Your task to perform on an android device: Search for sushi restaurants on Maps Image 0: 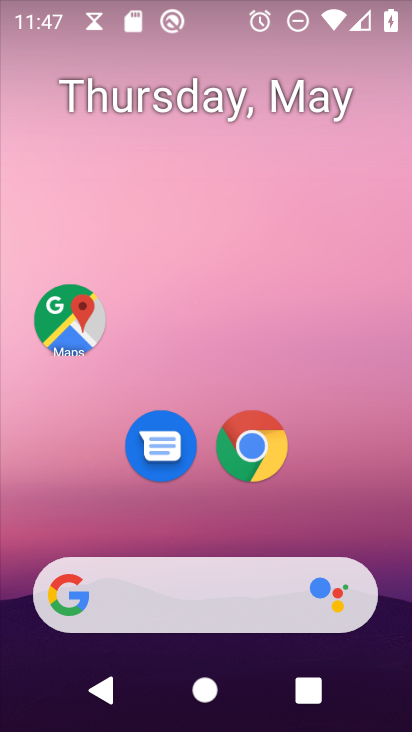
Step 0: drag from (303, 624) to (208, 198)
Your task to perform on an android device: Search for sushi restaurants on Maps Image 1: 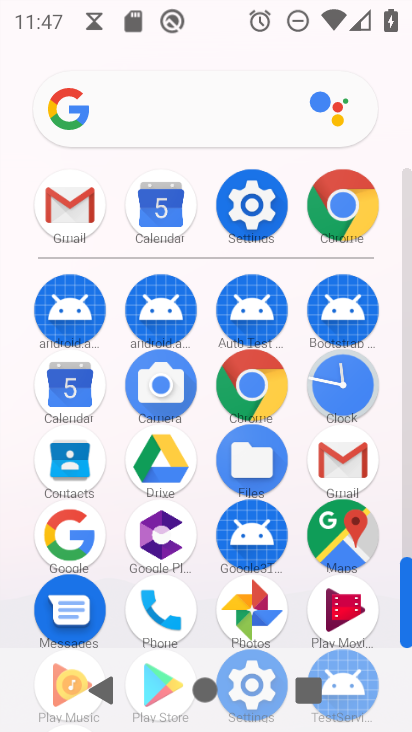
Step 1: click (334, 522)
Your task to perform on an android device: Search for sushi restaurants on Maps Image 2: 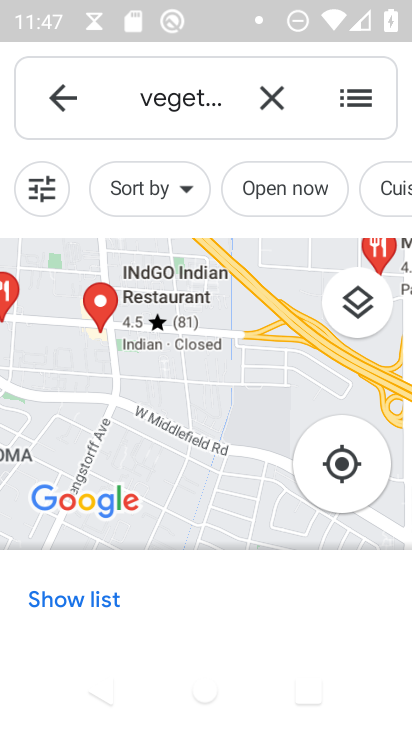
Step 2: click (261, 103)
Your task to perform on an android device: Search for sushi restaurants on Maps Image 3: 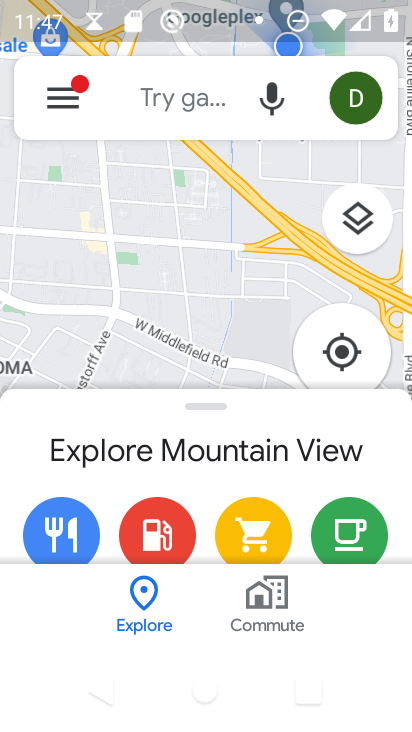
Step 3: click (174, 97)
Your task to perform on an android device: Search for sushi restaurants on Maps Image 4: 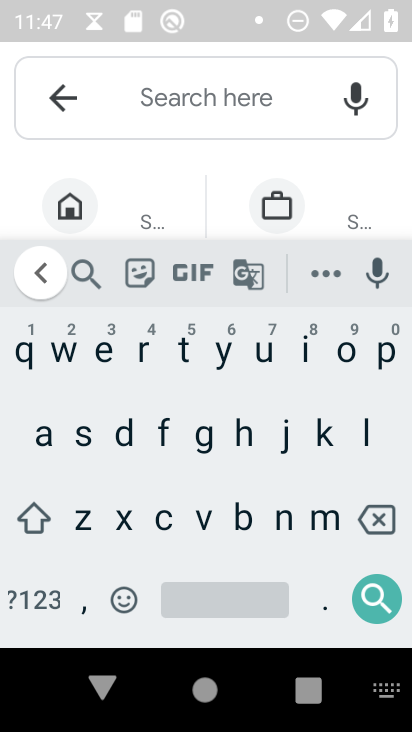
Step 4: click (79, 432)
Your task to perform on an android device: Search for sushi restaurants on Maps Image 5: 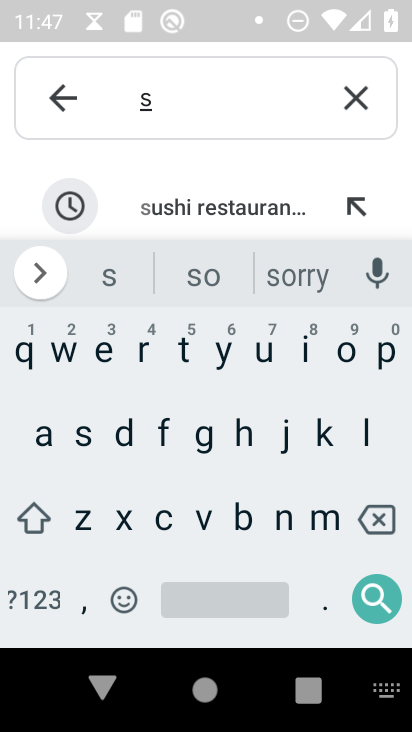
Step 5: click (233, 194)
Your task to perform on an android device: Search for sushi restaurants on Maps Image 6: 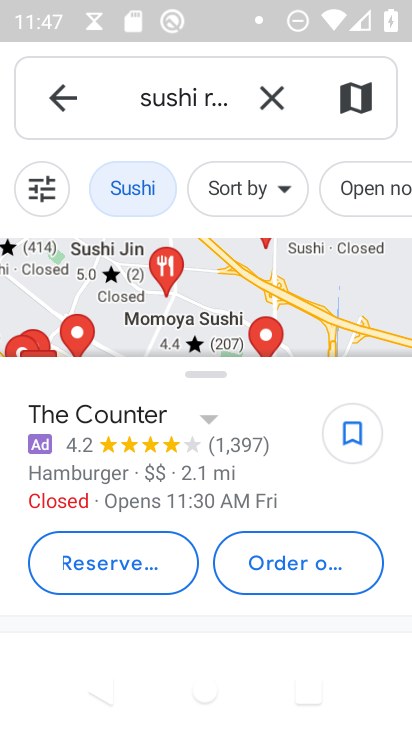
Step 6: click (160, 315)
Your task to perform on an android device: Search for sushi restaurants on Maps Image 7: 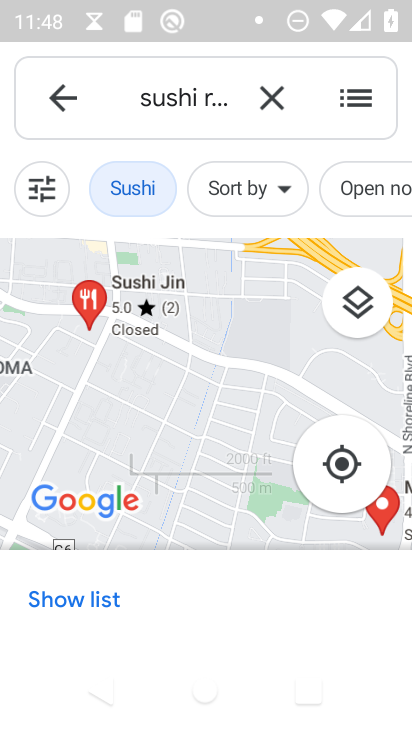
Step 7: task complete